Your task to perform on an android device: View the shopping cart on ebay. Add "apple airpods" to the cart on ebay Image 0: 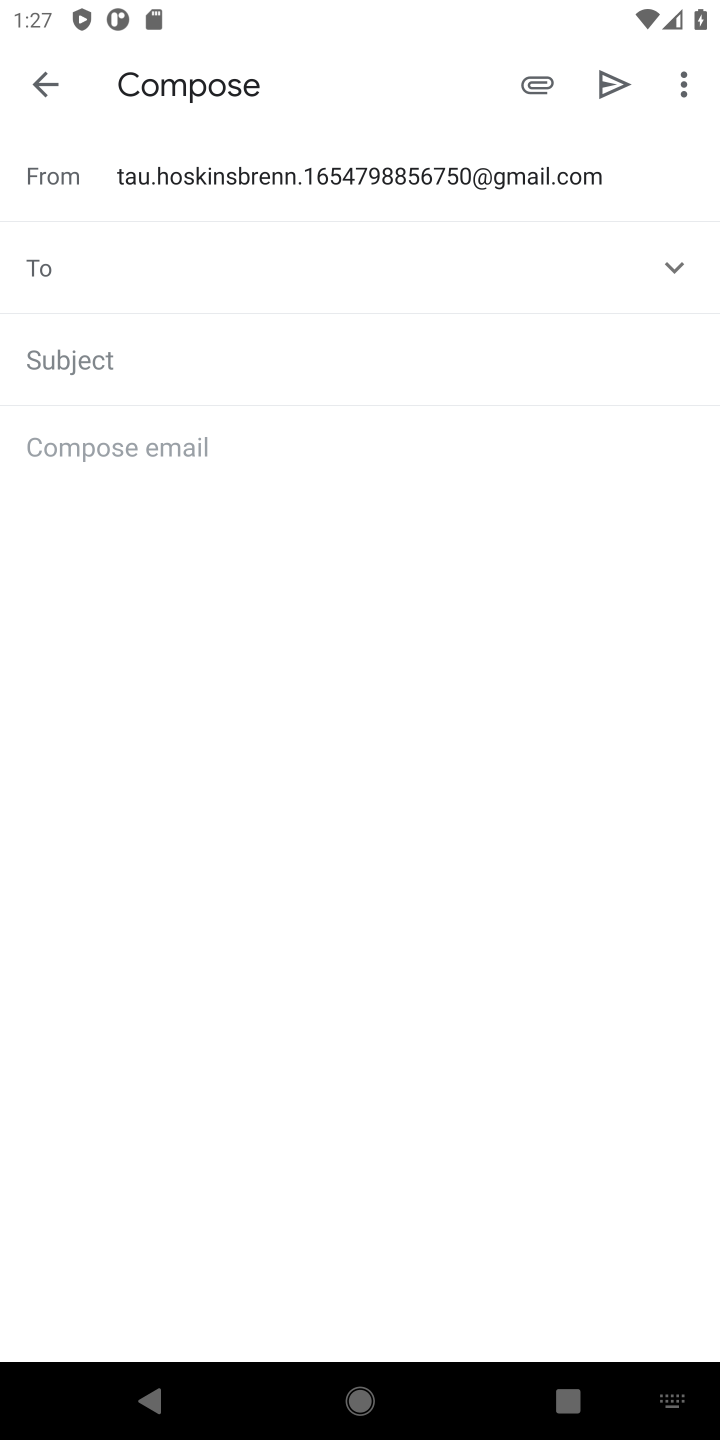
Step 0: press home button
Your task to perform on an android device: View the shopping cart on ebay. Add "apple airpods" to the cart on ebay Image 1: 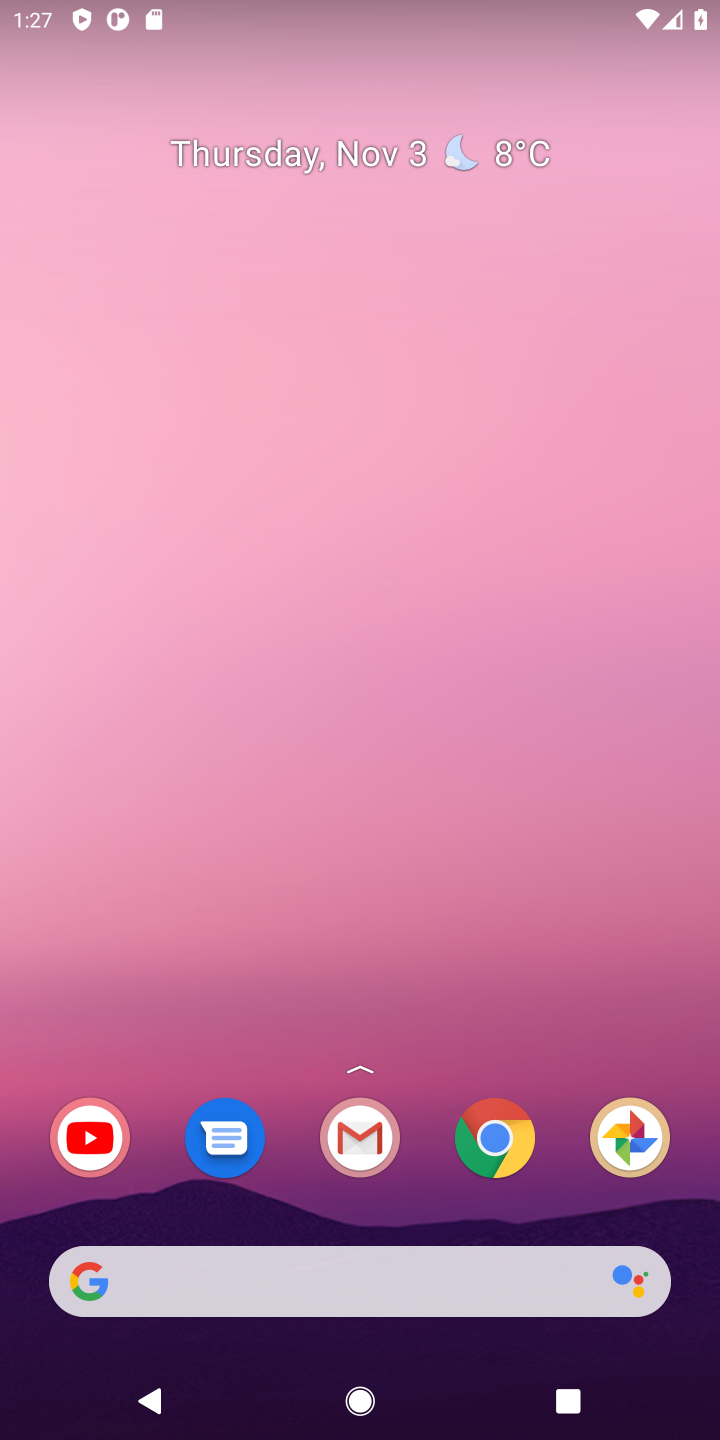
Step 1: click (468, 1145)
Your task to perform on an android device: View the shopping cart on ebay. Add "apple airpods" to the cart on ebay Image 2: 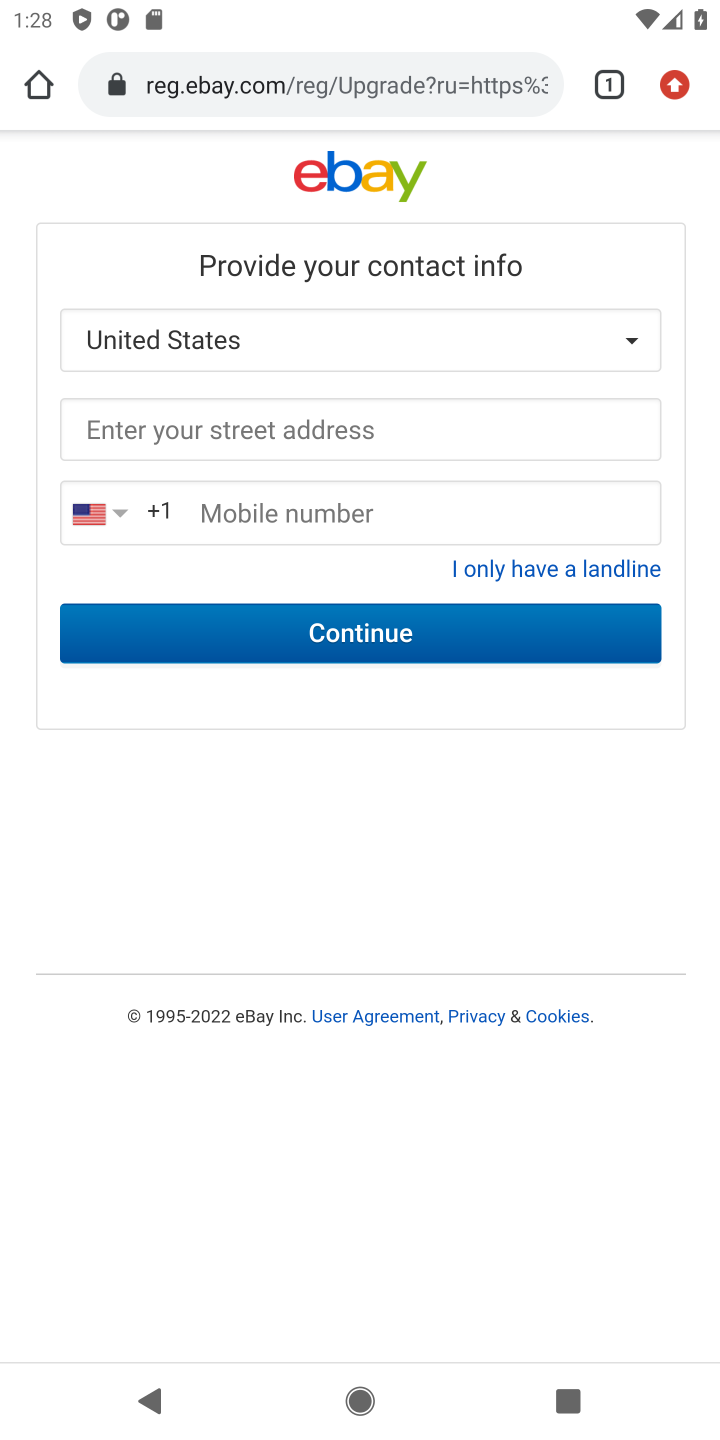
Step 2: press back button
Your task to perform on an android device: View the shopping cart on ebay. Add "apple airpods" to the cart on ebay Image 3: 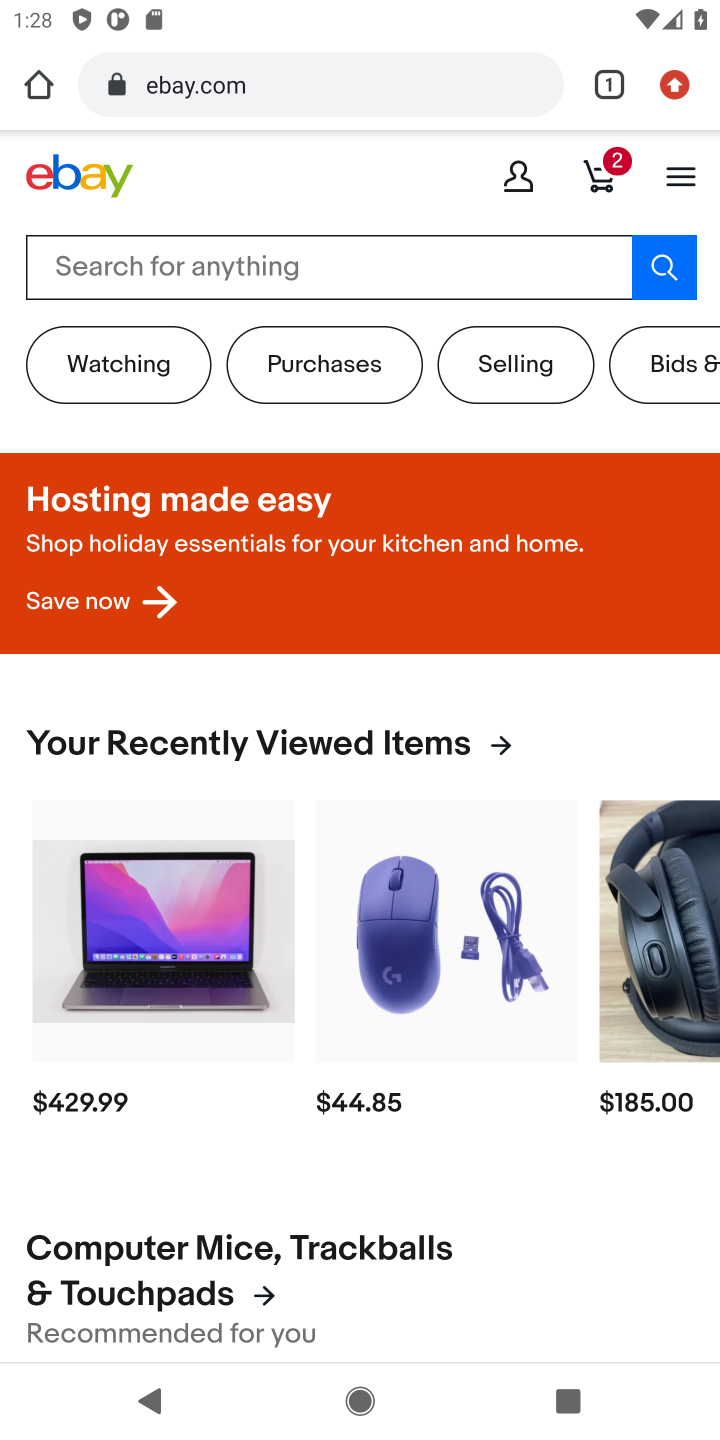
Step 3: click (620, 174)
Your task to perform on an android device: View the shopping cart on ebay. Add "apple airpods" to the cart on ebay Image 4: 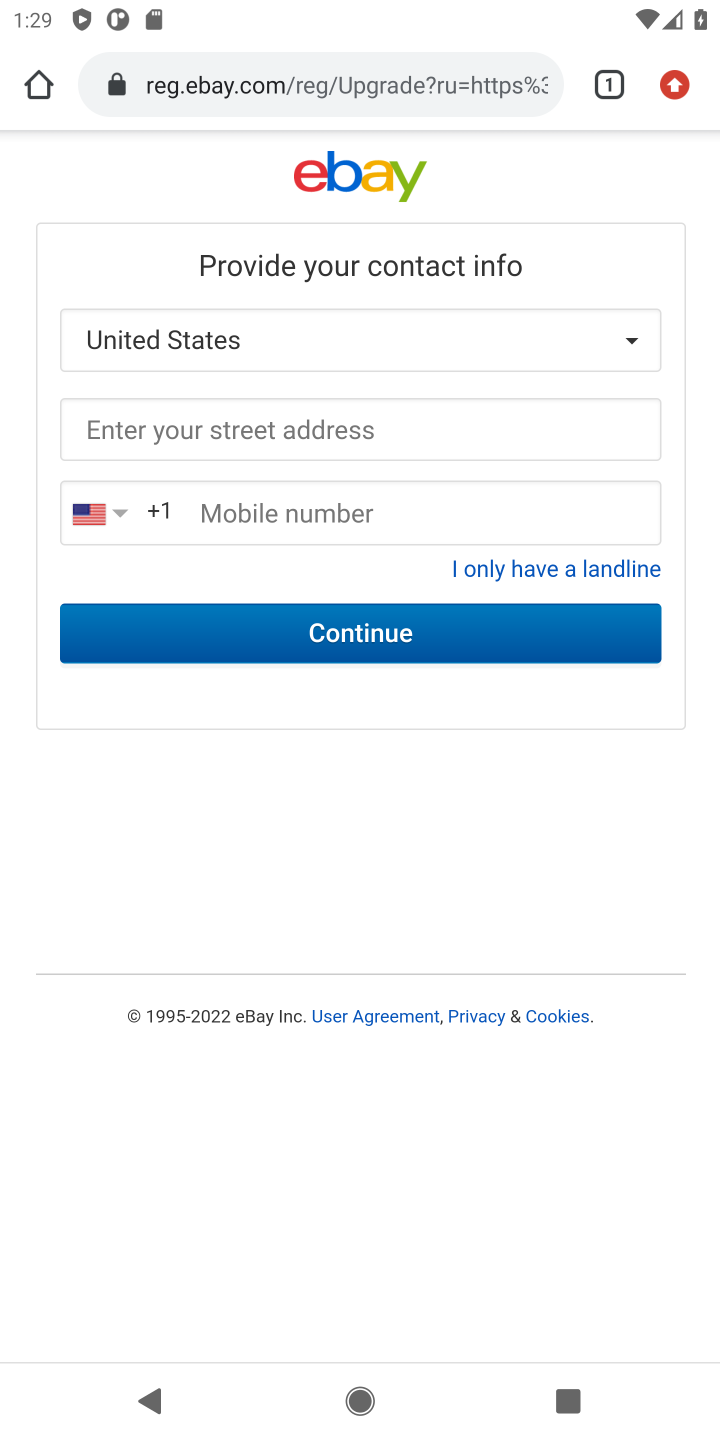
Step 4: press back button
Your task to perform on an android device: View the shopping cart on ebay. Add "apple airpods" to the cart on ebay Image 5: 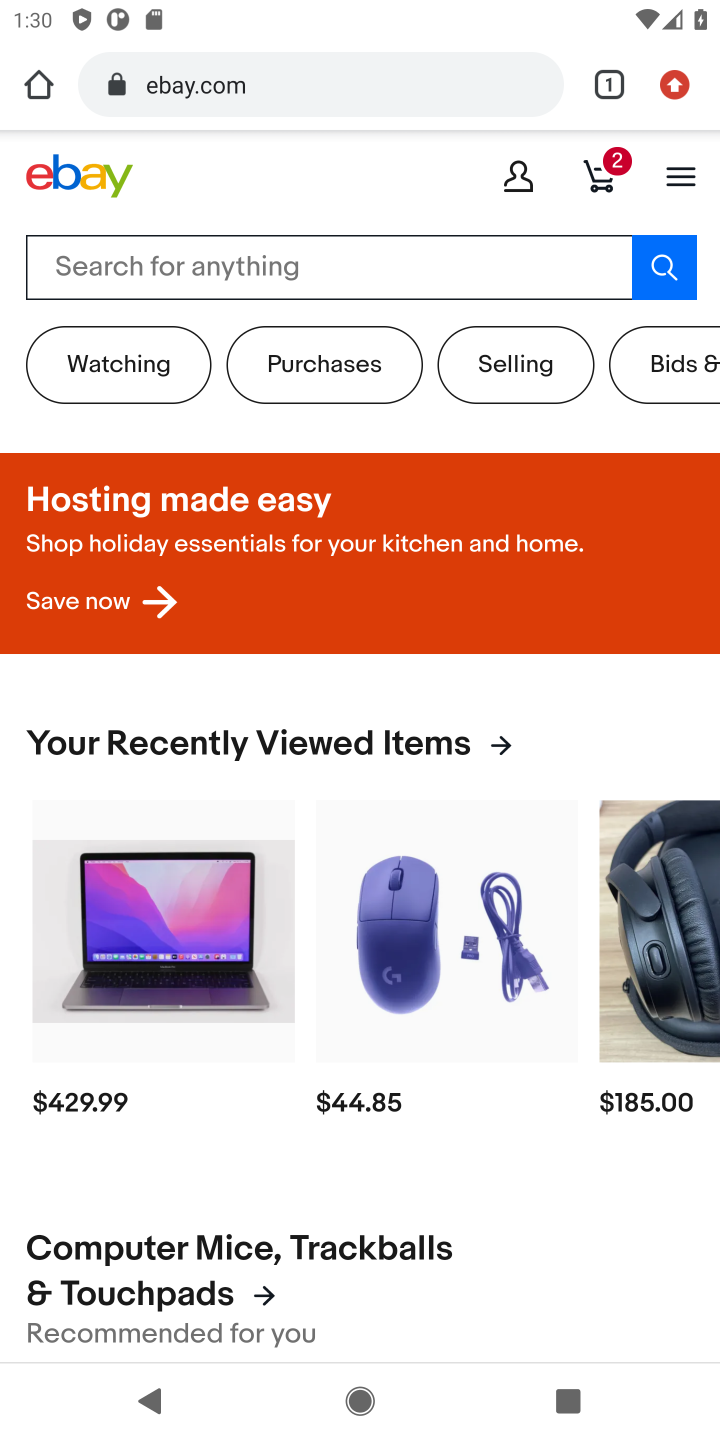
Step 5: click (611, 171)
Your task to perform on an android device: View the shopping cart on ebay. Add "apple airpods" to the cart on ebay Image 6: 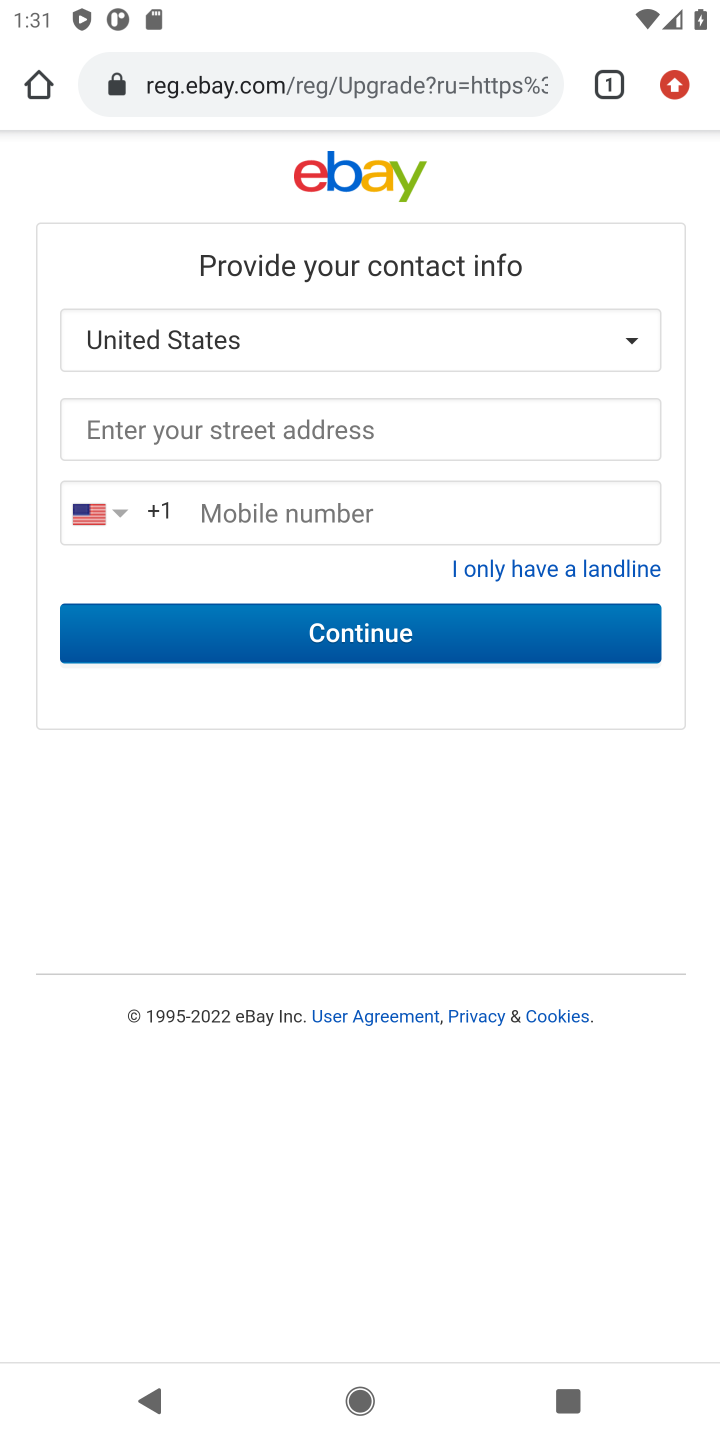
Step 6: click (611, 171)
Your task to perform on an android device: View the shopping cart on ebay. Add "apple airpods" to the cart on ebay Image 7: 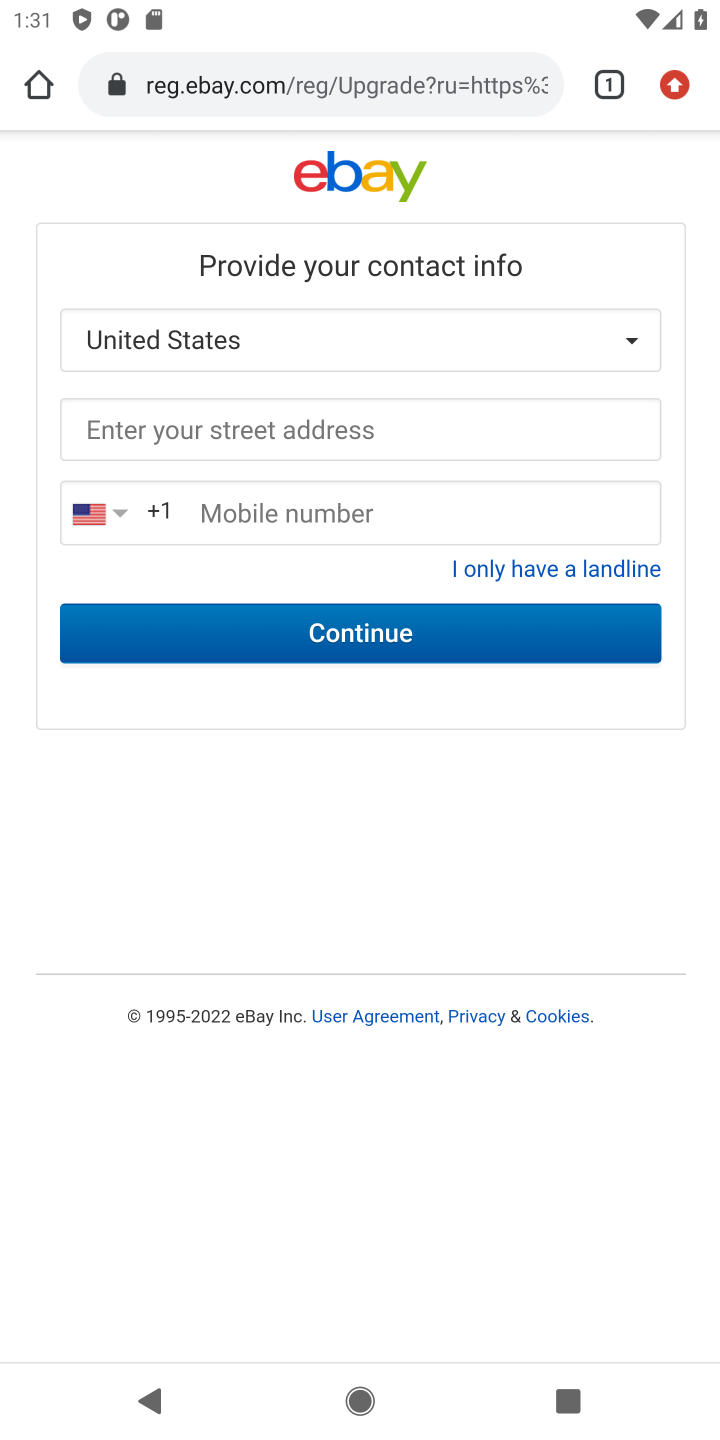
Step 7: task complete